Your task to perform on an android device: Set the phone to "Do not disturb". Image 0: 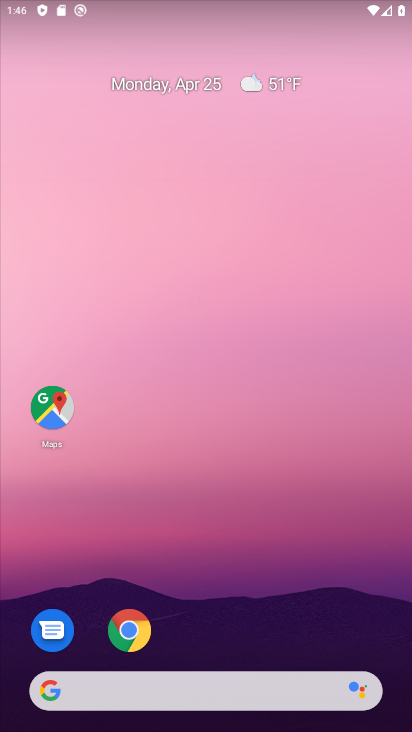
Step 0: drag from (270, 552) to (265, 60)
Your task to perform on an android device: Set the phone to "Do not disturb". Image 1: 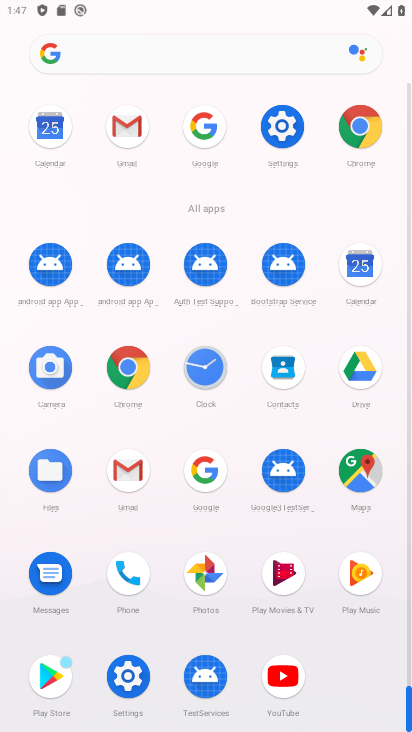
Step 1: click (277, 129)
Your task to perform on an android device: Set the phone to "Do not disturb". Image 2: 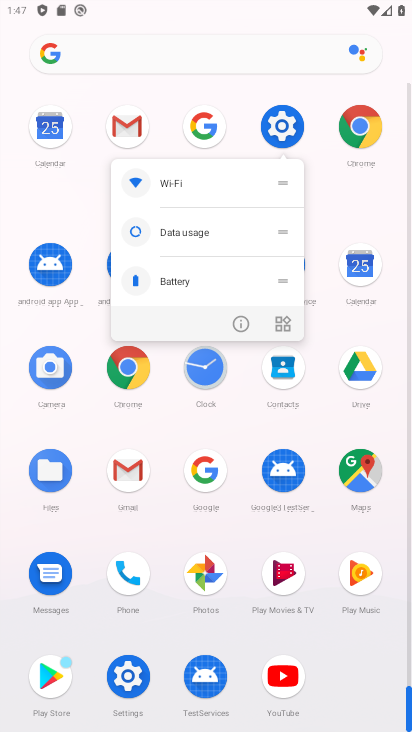
Step 2: click (277, 127)
Your task to perform on an android device: Set the phone to "Do not disturb". Image 3: 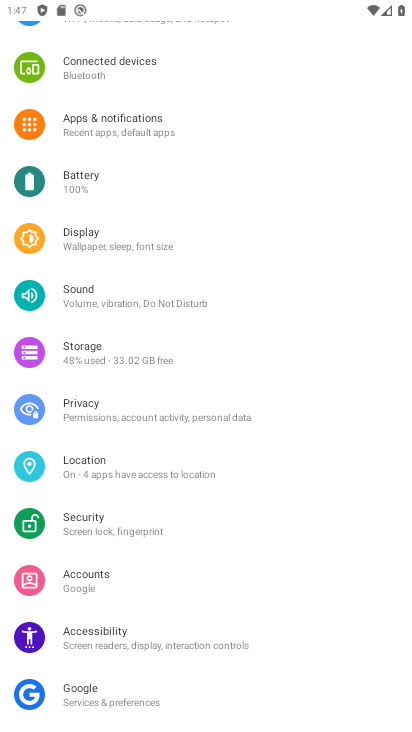
Step 3: drag from (146, 582) to (225, 106)
Your task to perform on an android device: Set the phone to "Do not disturb". Image 4: 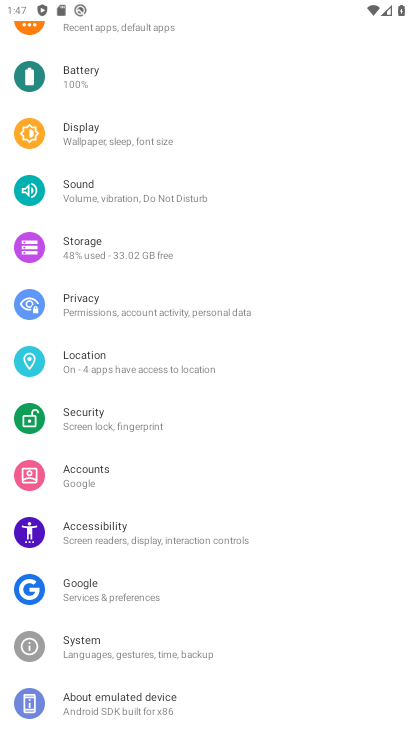
Step 4: click (126, 194)
Your task to perform on an android device: Set the phone to "Do not disturb". Image 5: 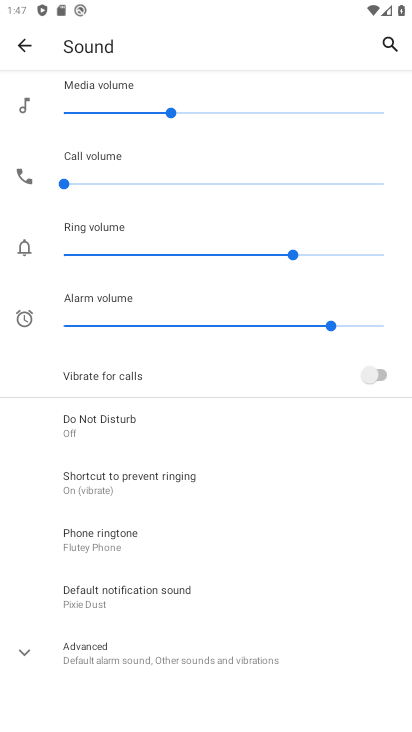
Step 5: drag from (146, 618) to (138, 187)
Your task to perform on an android device: Set the phone to "Do not disturb". Image 6: 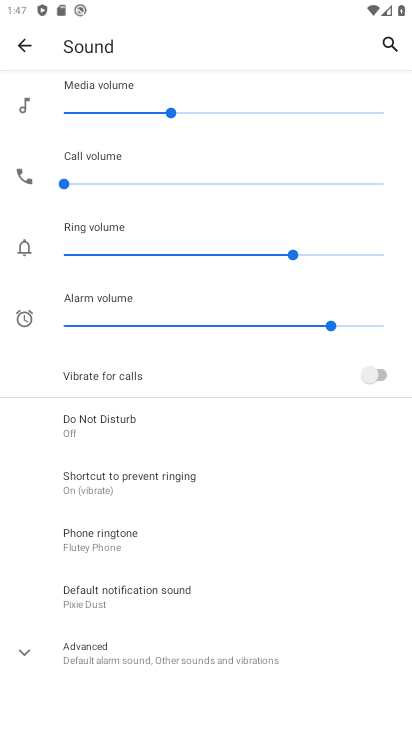
Step 6: click (84, 422)
Your task to perform on an android device: Set the phone to "Do not disturb". Image 7: 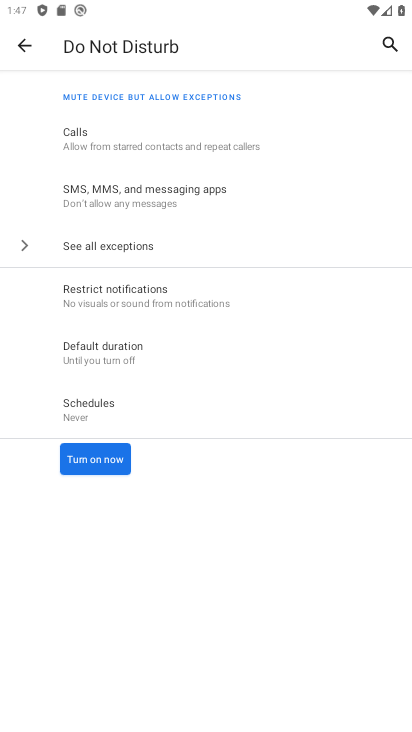
Step 7: click (102, 465)
Your task to perform on an android device: Set the phone to "Do not disturb". Image 8: 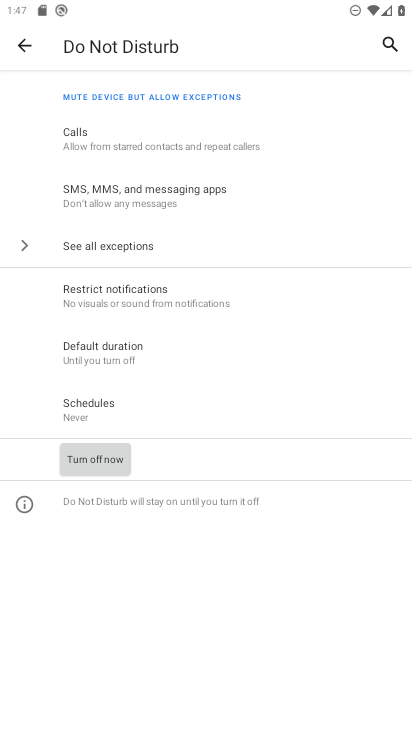
Step 8: task complete